Your task to perform on an android device: Open Wikipedia Image 0: 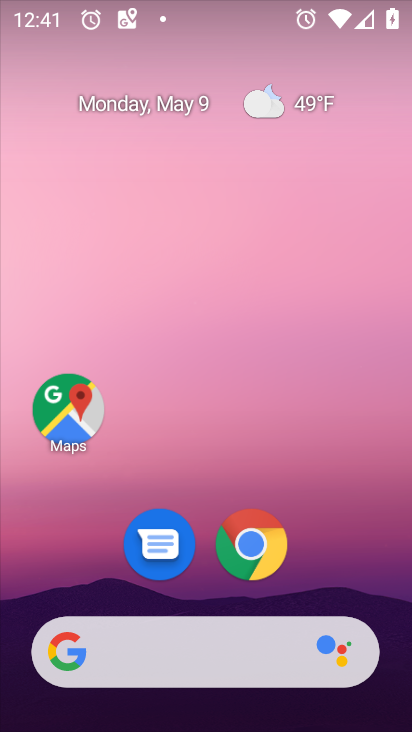
Step 0: click (233, 549)
Your task to perform on an android device: Open Wikipedia Image 1: 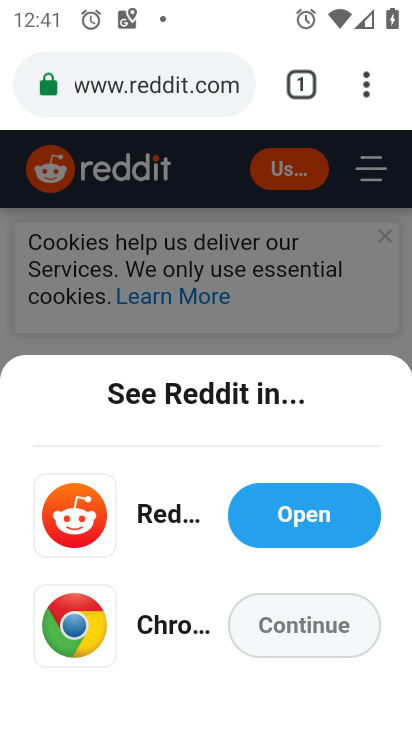
Step 1: click (213, 102)
Your task to perform on an android device: Open Wikipedia Image 2: 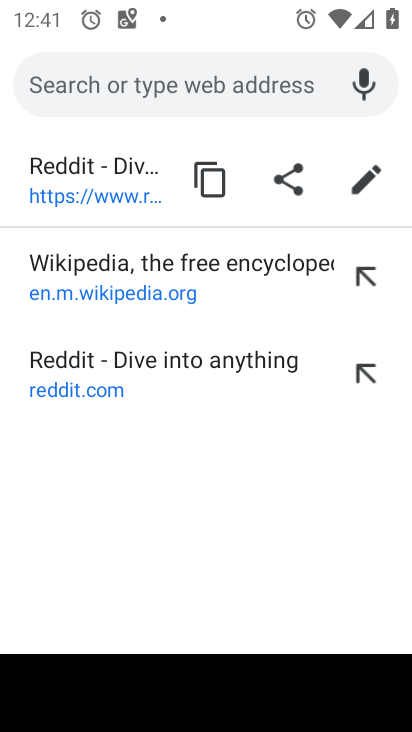
Step 2: type "wikipedia"
Your task to perform on an android device: Open Wikipedia Image 3: 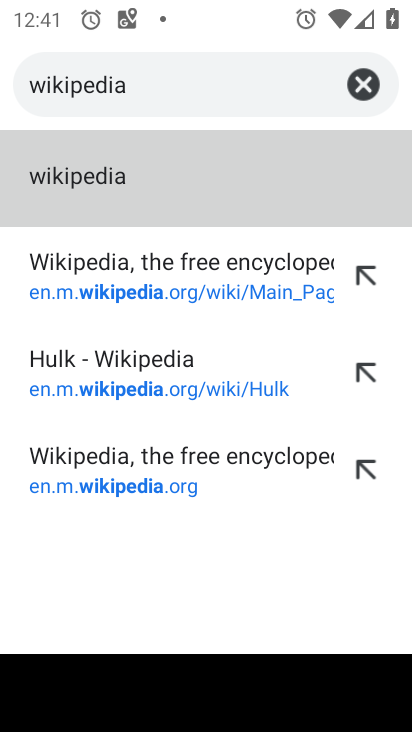
Step 3: click (209, 295)
Your task to perform on an android device: Open Wikipedia Image 4: 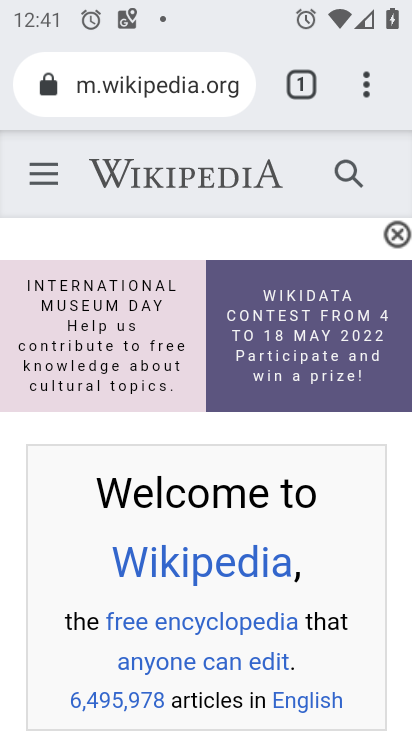
Step 4: task complete